Your task to perform on an android device: What's on my calendar tomorrow? Image 0: 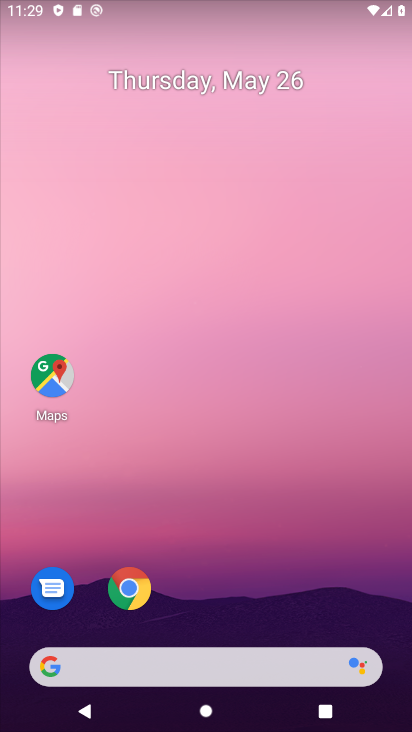
Step 0: drag from (189, 645) to (336, 707)
Your task to perform on an android device: What's on my calendar tomorrow? Image 1: 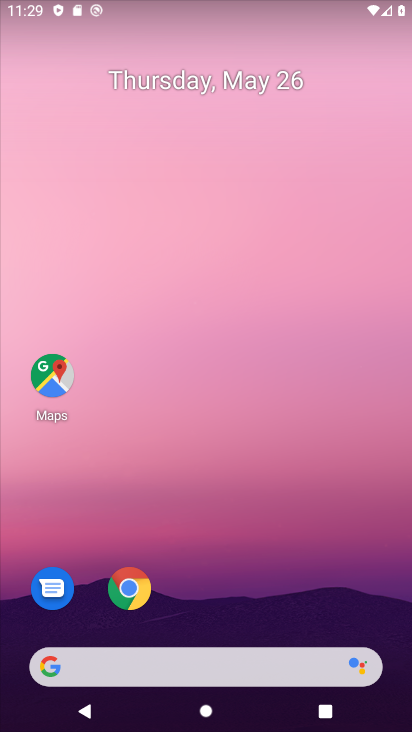
Step 1: drag from (194, 635) to (149, 18)
Your task to perform on an android device: What's on my calendar tomorrow? Image 2: 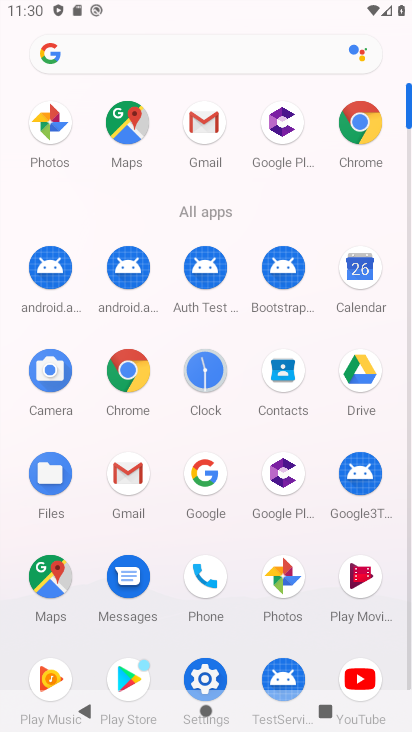
Step 2: click (376, 284)
Your task to perform on an android device: What's on my calendar tomorrow? Image 3: 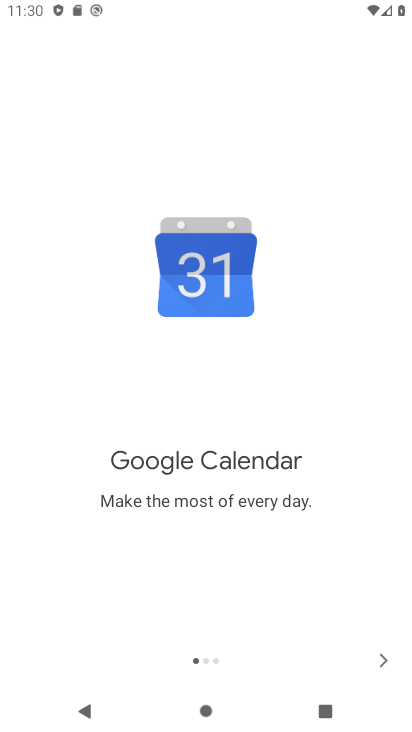
Step 3: click (386, 652)
Your task to perform on an android device: What's on my calendar tomorrow? Image 4: 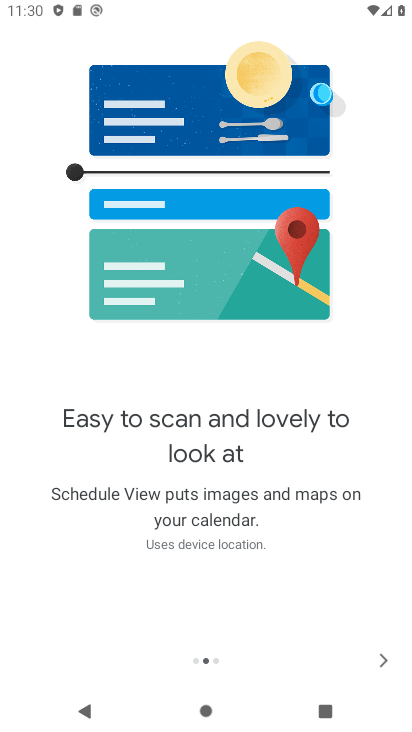
Step 4: click (378, 658)
Your task to perform on an android device: What's on my calendar tomorrow? Image 5: 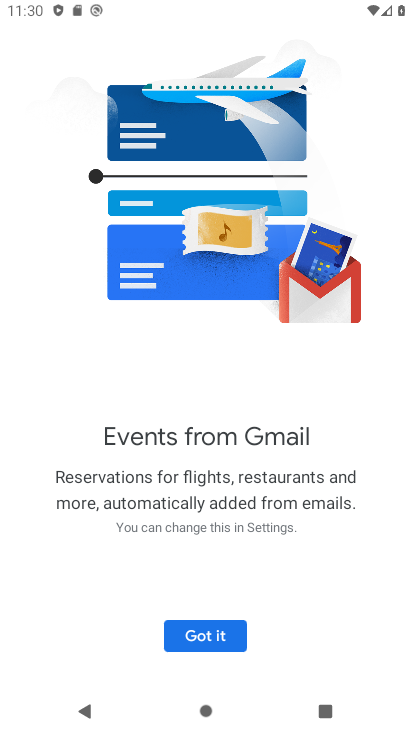
Step 5: click (226, 630)
Your task to perform on an android device: What's on my calendar tomorrow? Image 6: 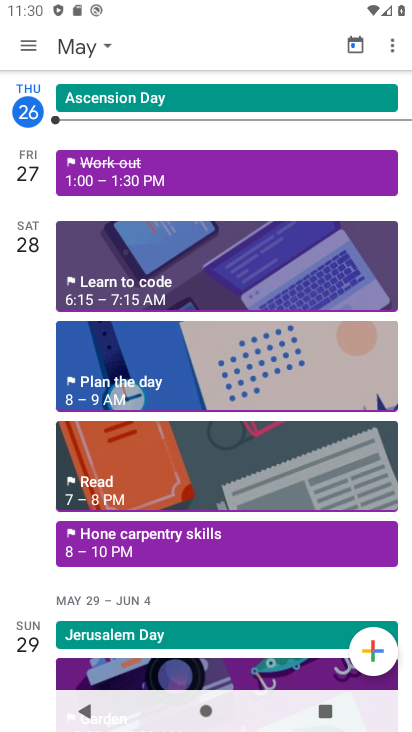
Step 6: click (18, 163)
Your task to perform on an android device: What's on my calendar tomorrow? Image 7: 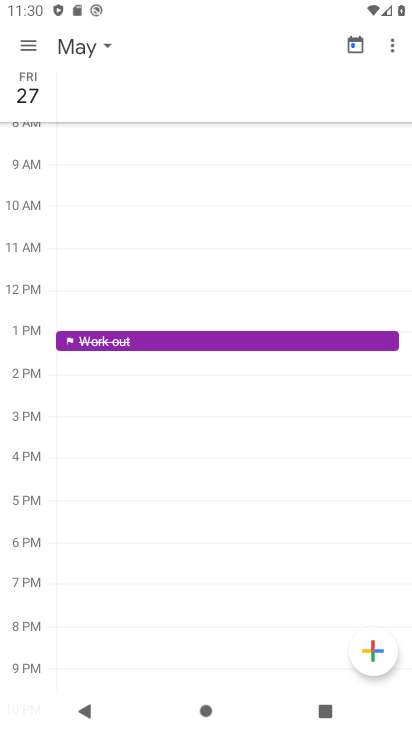
Step 7: task complete